Your task to perform on an android device: uninstall "TextNow: Call + Text Unlimited" Image 0: 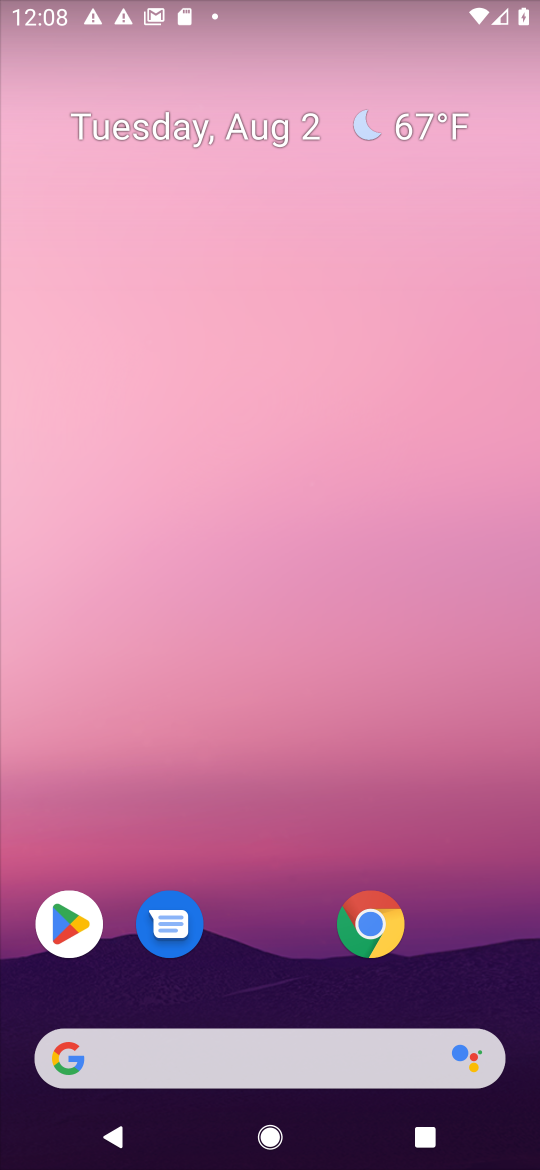
Step 0: click (72, 890)
Your task to perform on an android device: uninstall "TextNow: Call + Text Unlimited" Image 1: 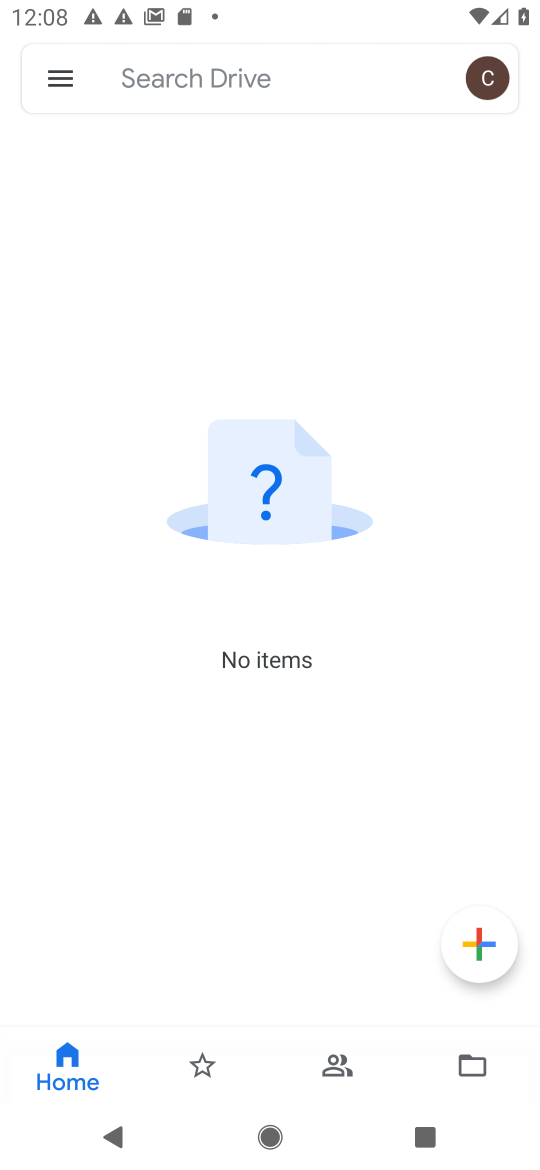
Step 1: press home button
Your task to perform on an android device: uninstall "TextNow: Call + Text Unlimited" Image 2: 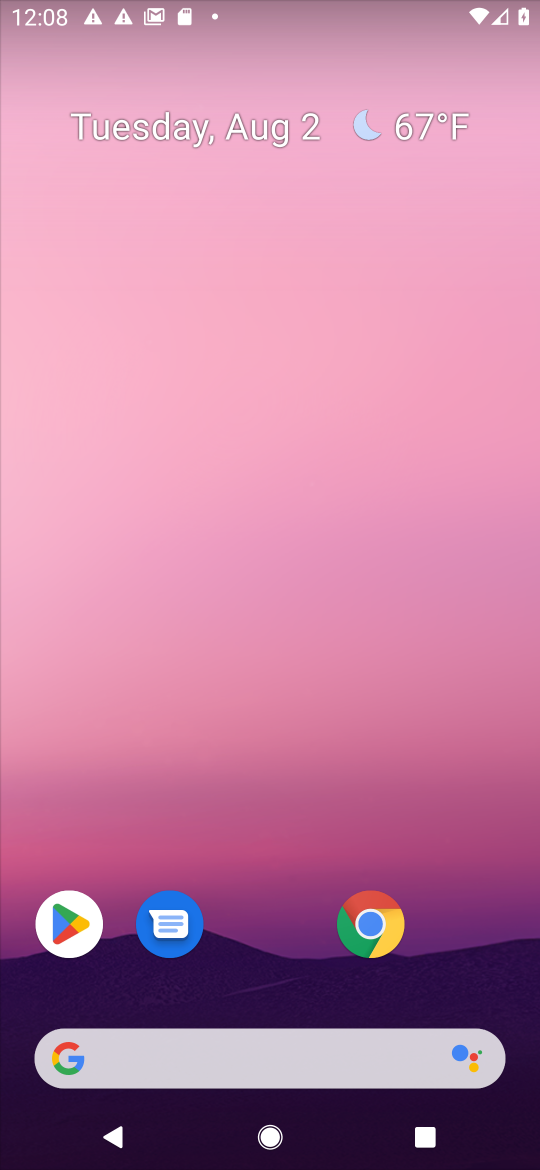
Step 2: click (66, 909)
Your task to perform on an android device: uninstall "TextNow: Call + Text Unlimited" Image 3: 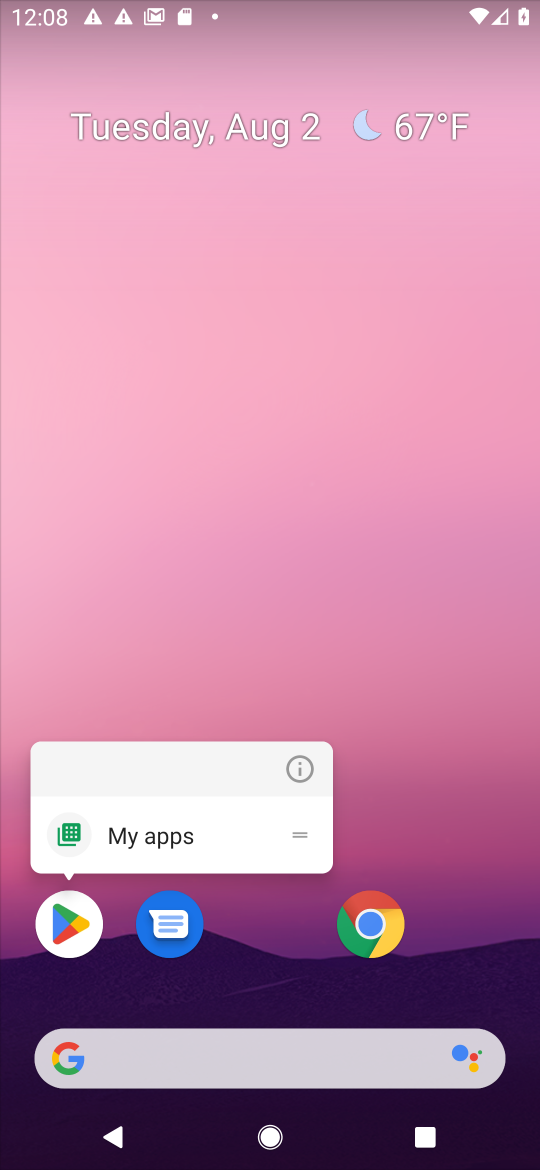
Step 3: click (63, 909)
Your task to perform on an android device: uninstall "TextNow: Call + Text Unlimited" Image 4: 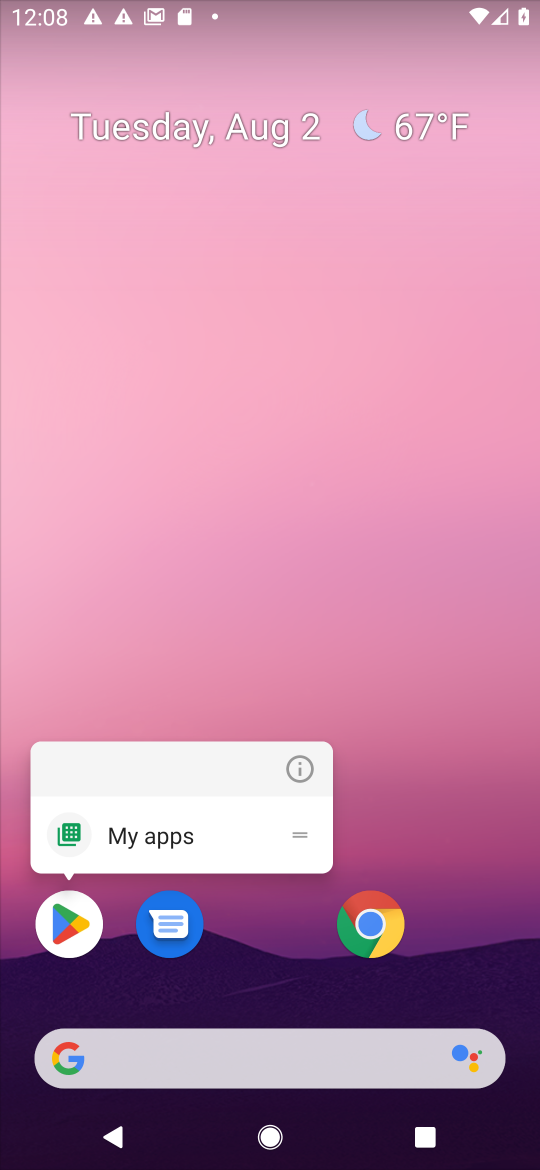
Step 4: click (65, 916)
Your task to perform on an android device: uninstall "TextNow: Call + Text Unlimited" Image 5: 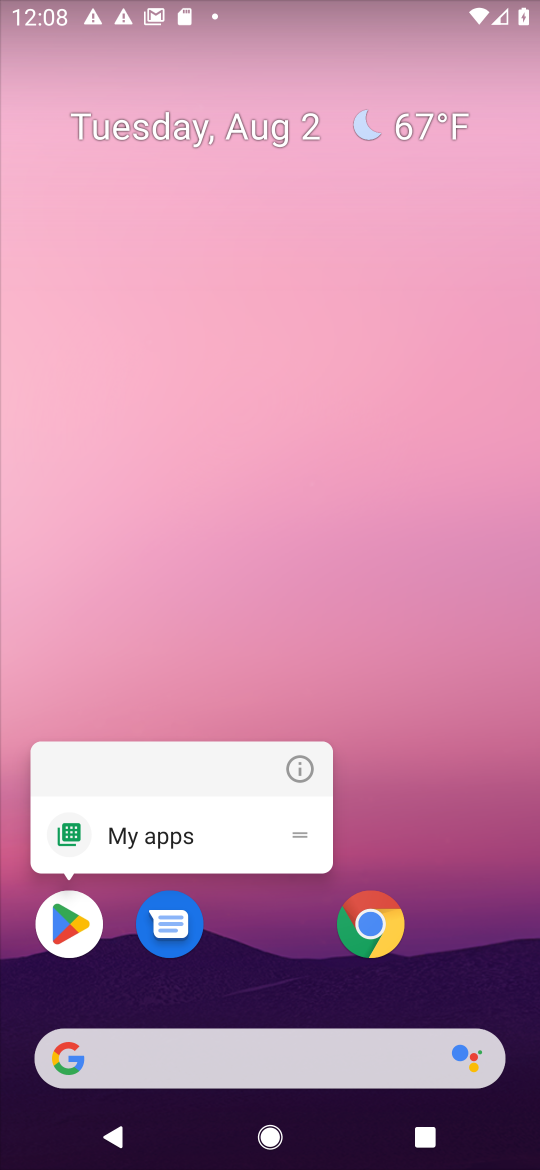
Step 5: click (59, 916)
Your task to perform on an android device: uninstall "TextNow: Call + Text Unlimited" Image 6: 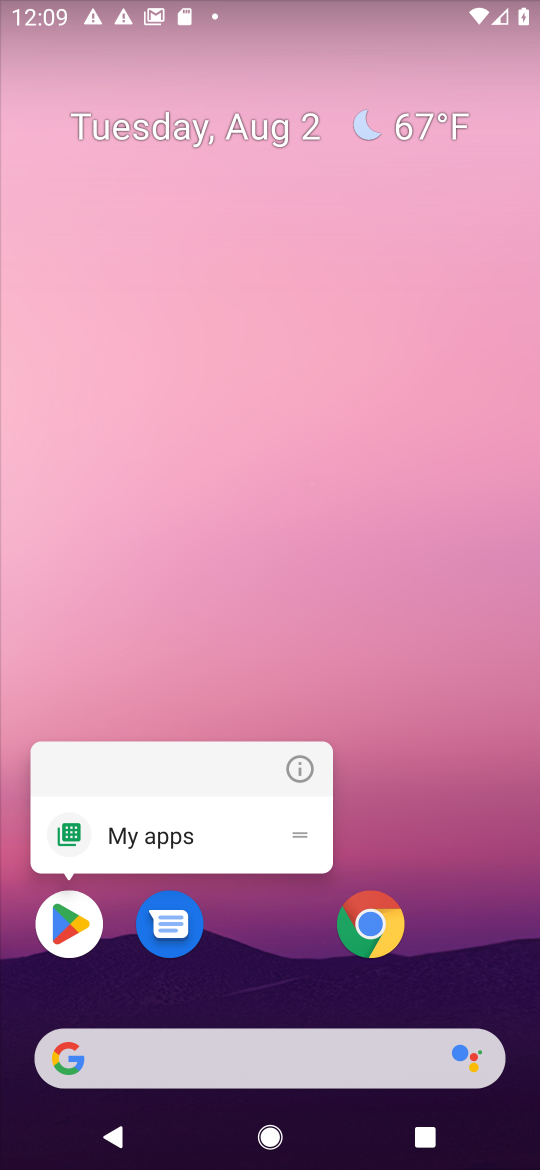
Step 6: click (63, 910)
Your task to perform on an android device: uninstall "TextNow: Call + Text Unlimited" Image 7: 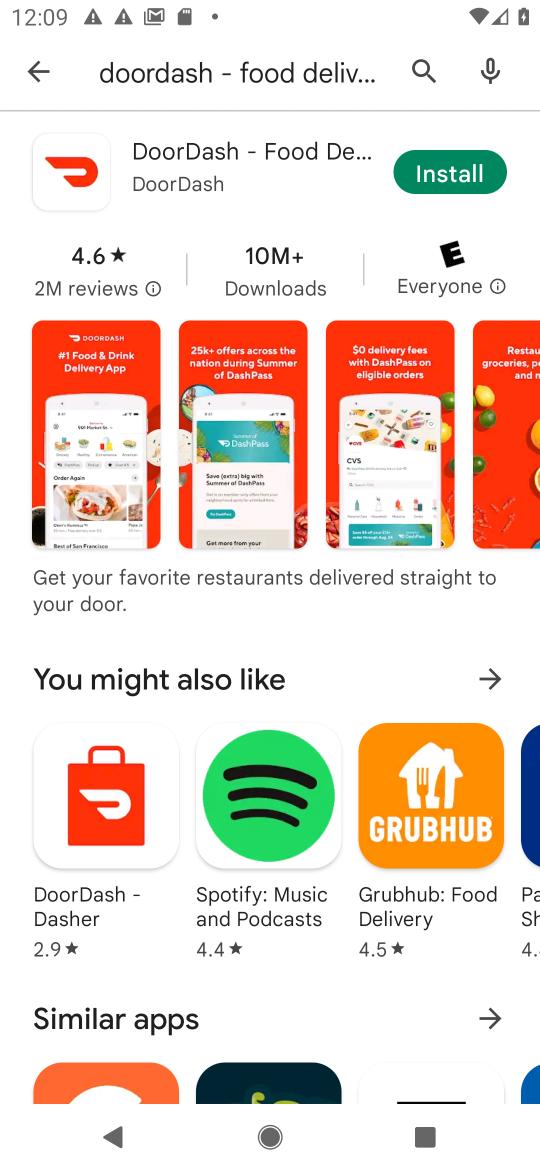
Step 7: click (418, 69)
Your task to perform on an android device: uninstall "TextNow: Call + Text Unlimited" Image 8: 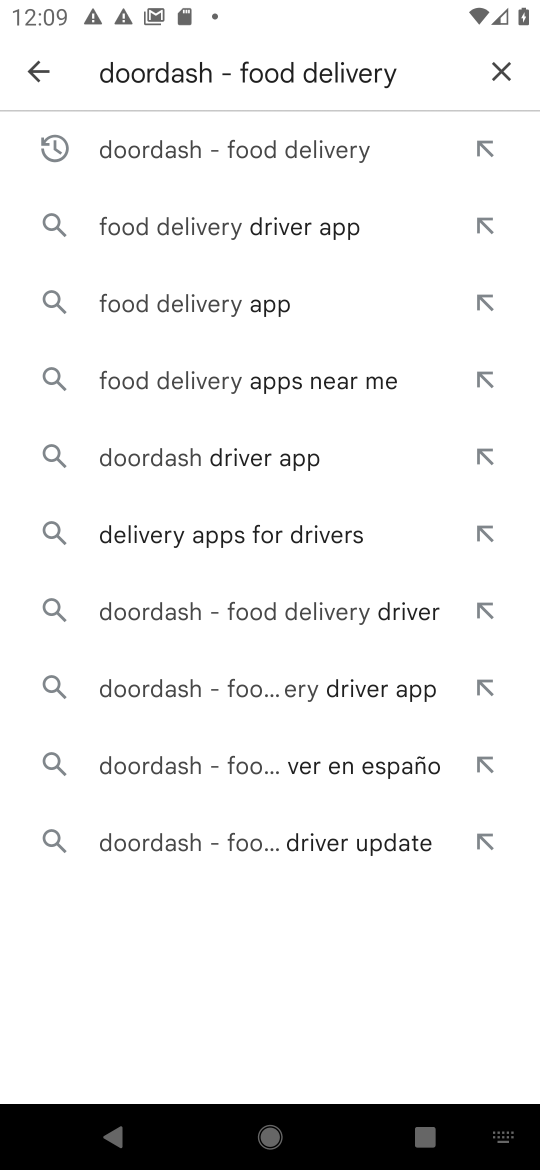
Step 8: click (491, 60)
Your task to perform on an android device: uninstall "TextNow: Call + Text Unlimited" Image 9: 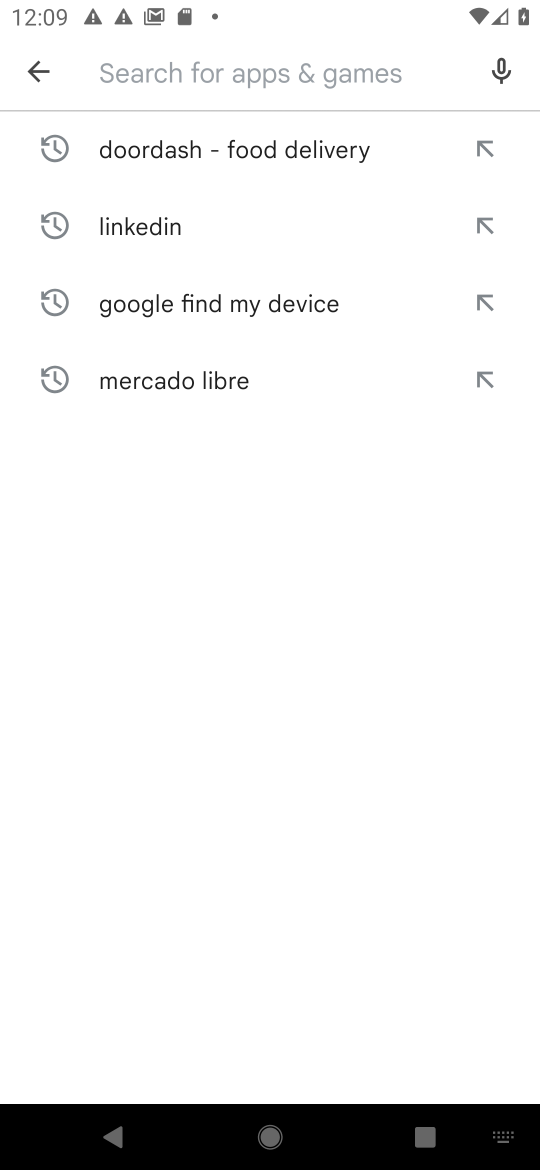
Step 9: type "TextNow: Call + Text Unlimited"
Your task to perform on an android device: uninstall "TextNow: Call + Text Unlimited" Image 10: 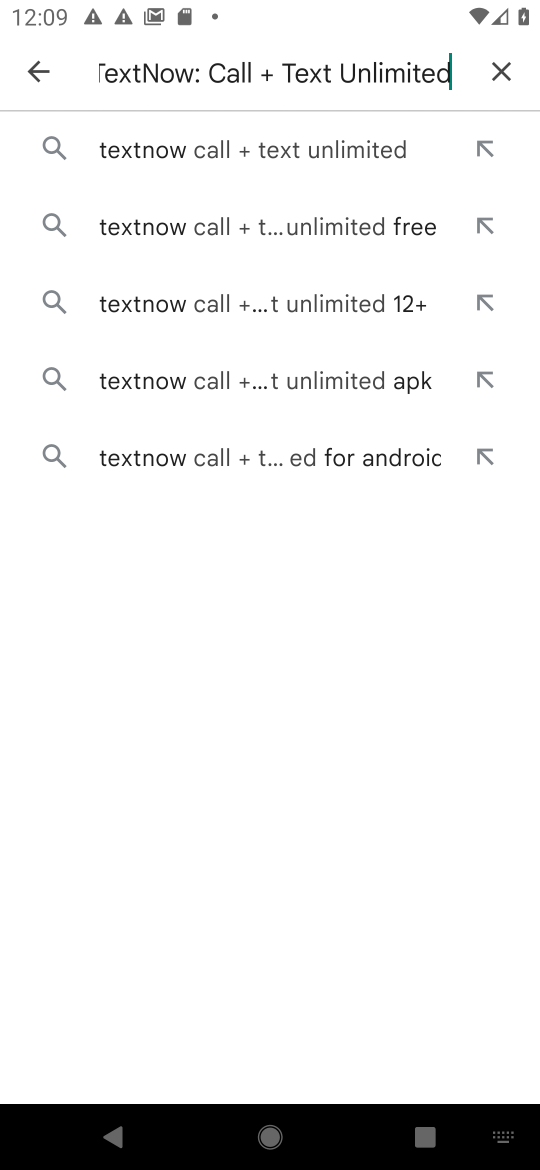
Step 10: click (338, 140)
Your task to perform on an android device: uninstall "TextNow: Call + Text Unlimited" Image 11: 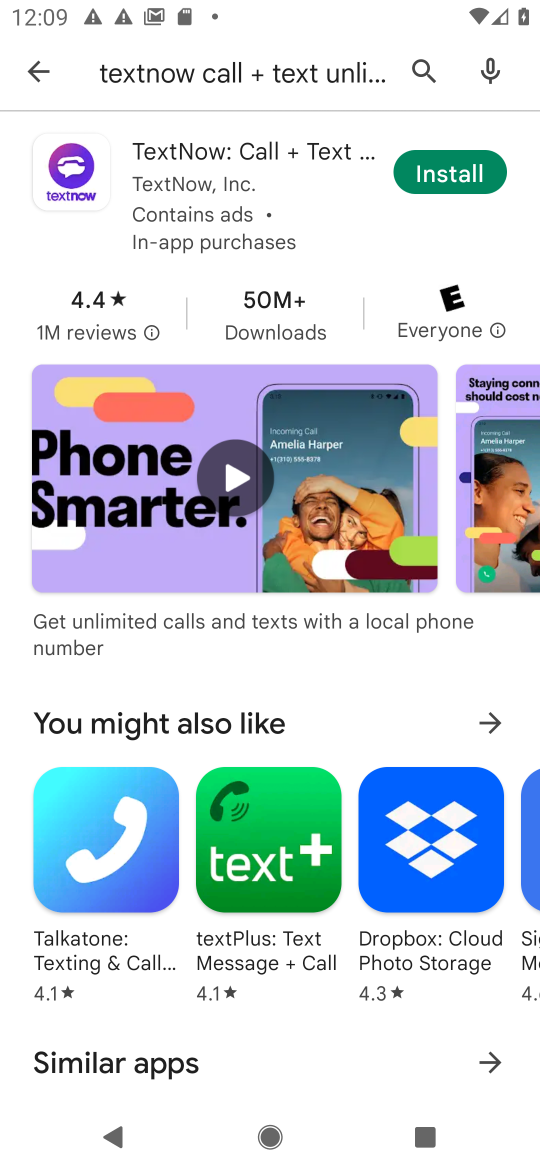
Step 11: task complete